Your task to perform on an android device: Go to sound settings Image 0: 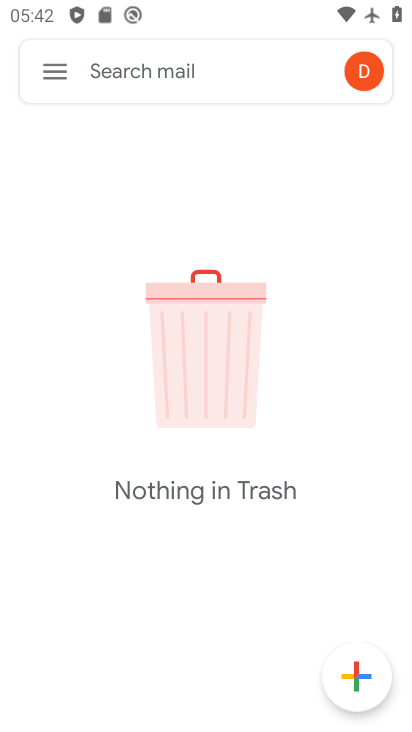
Step 0: press home button
Your task to perform on an android device: Go to sound settings Image 1: 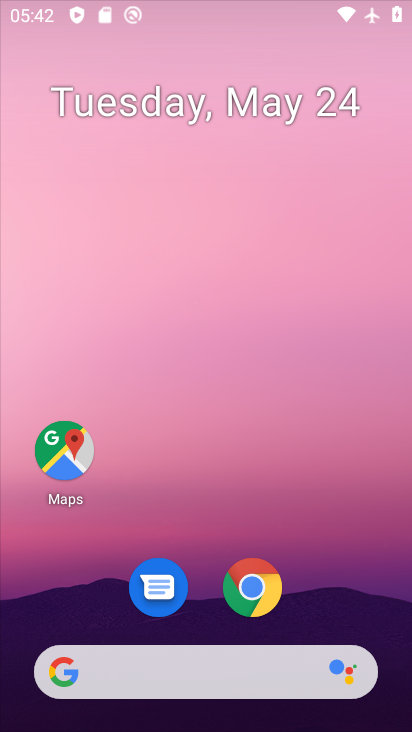
Step 1: drag from (328, 559) to (185, 9)
Your task to perform on an android device: Go to sound settings Image 2: 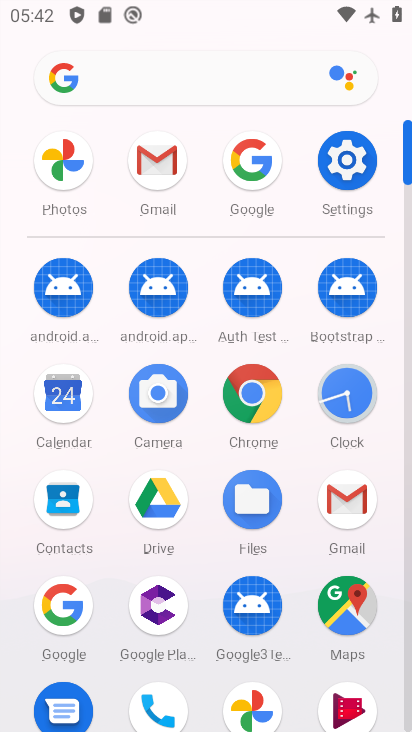
Step 2: click (350, 163)
Your task to perform on an android device: Go to sound settings Image 3: 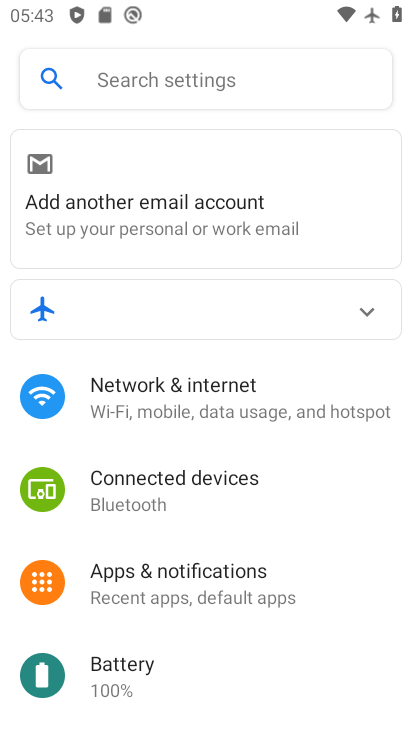
Step 3: drag from (229, 571) to (158, 75)
Your task to perform on an android device: Go to sound settings Image 4: 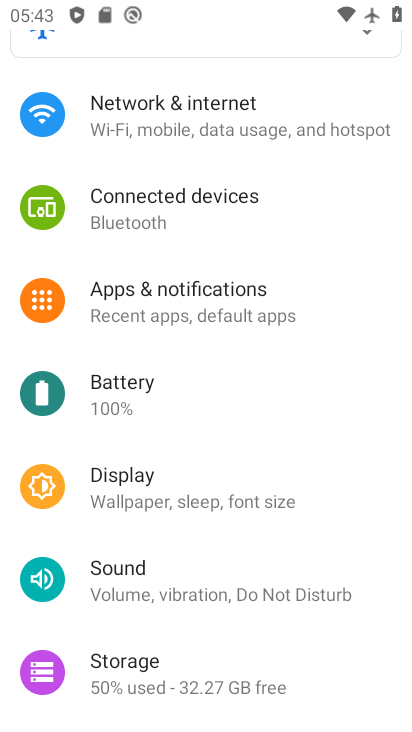
Step 4: click (232, 560)
Your task to perform on an android device: Go to sound settings Image 5: 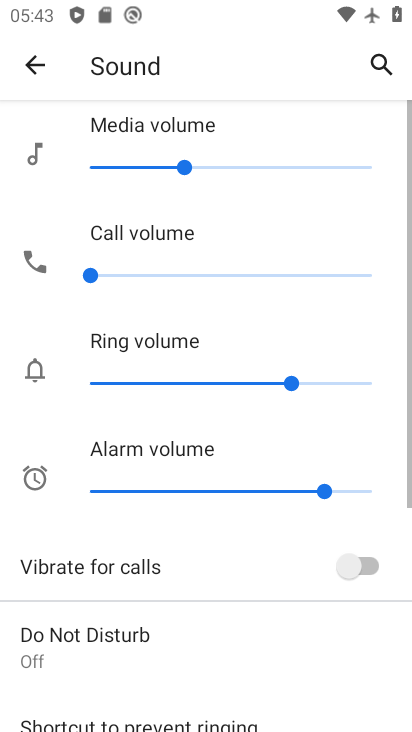
Step 5: task complete